Your task to perform on an android device: Open the calendar app, open the side menu, and click the "Day" option Image 0: 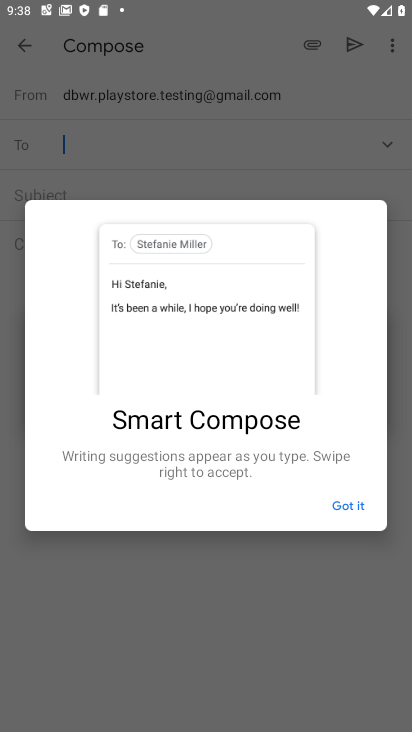
Step 0: press home button
Your task to perform on an android device: Open the calendar app, open the side menu, and click the "Day" option Image 1: 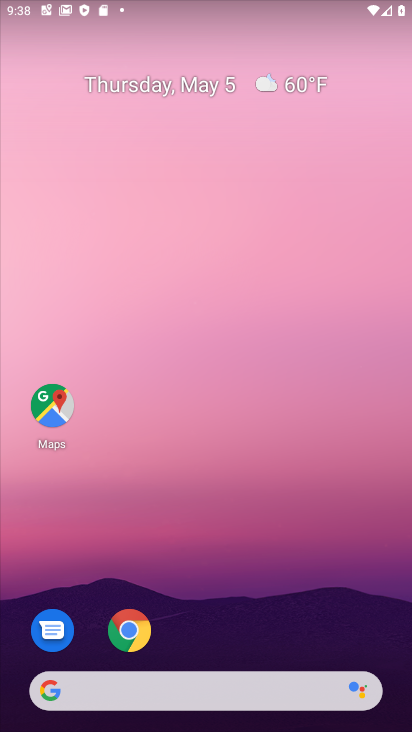
Step 1: drag from (240, 620) to (200, 26)
Your task to perform on an android device: Open the calendar app, open the side menu, and click the "Day" option Image 2: 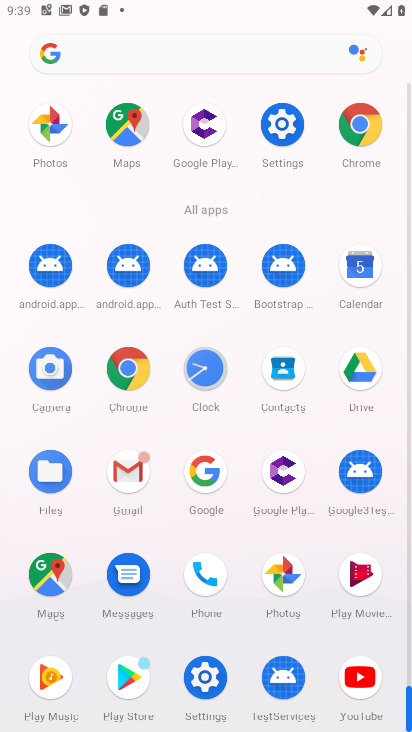
Step 2: click (365, 266)
Your task to perform on an android device: Open the calendar app, open the side menu, and click the "Day" option Image 3: 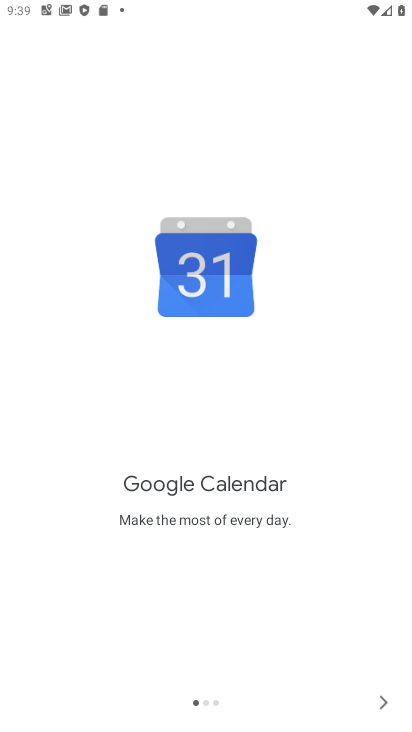
Step 3: click (389, 712)
Your task to perform on an android device: Open the calendar app, open the side menu, and click the "Day" option Image 4: 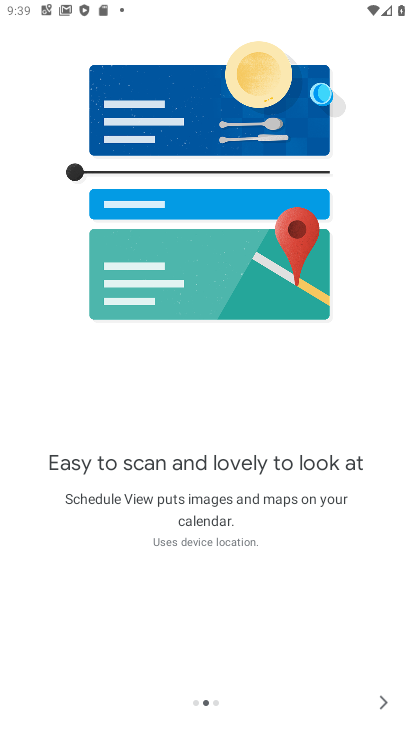
Step 4: click (380, 695)
Your task to perform on an android device: Open the calendar app, open the side menu, and click the "Day" option Image 5: 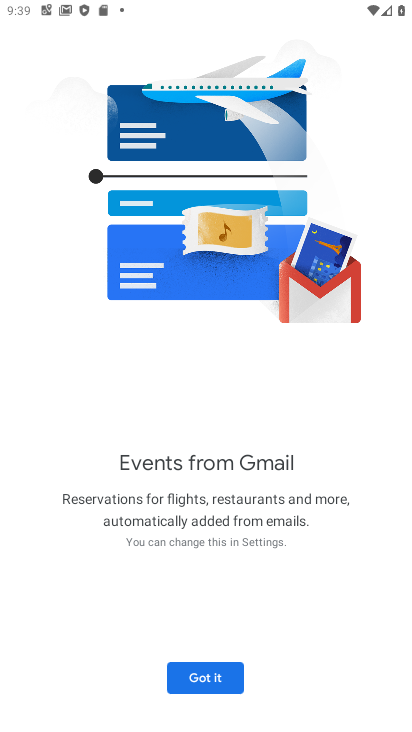
Step 5: click (176, 683)
Your task to perform on an android device: Open the calendar app, open the side menu, and click the "Day" option Image 6: 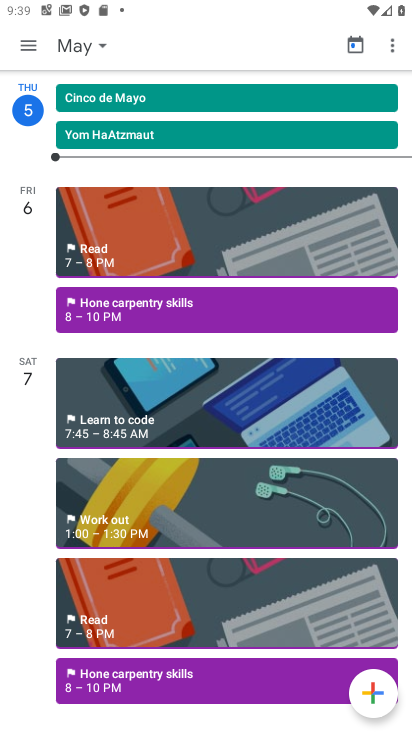
Step 6: click (32, 46)
Your task to perform on an android device: Open the calendar app, open the side menu, and click the "Day" option Image 7: 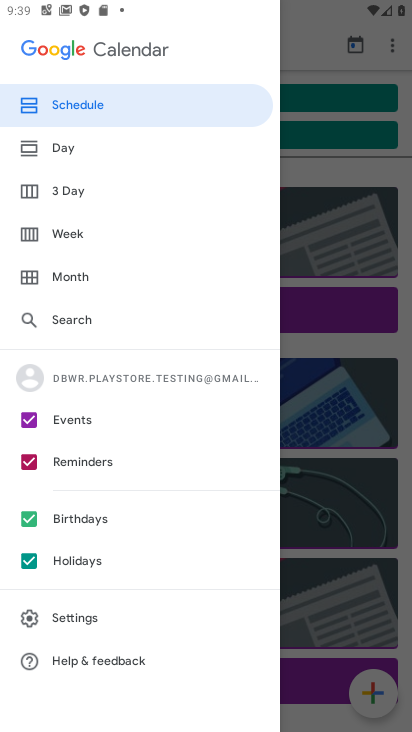
Step 7: click (75, 146)
Your task to perform on an android device: Open the calendar app, open the side menu, and click the "Day" option Image 8: 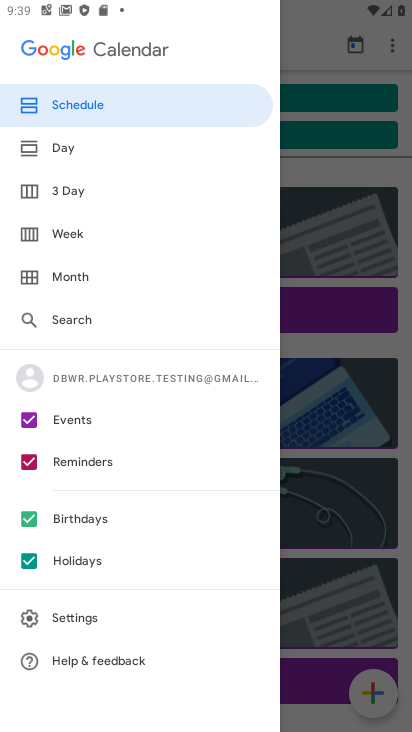
Step 8: click (56, 147)
Your task to perform on an android device: Open the calendar app, open the side menu, and click the "Day" option Image 9: 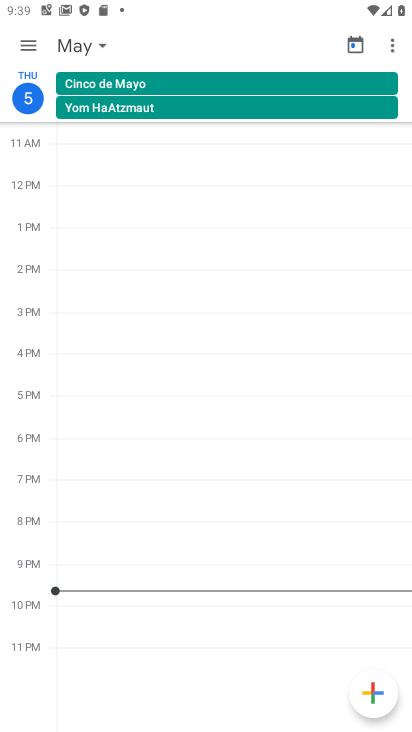
Step 9: click (263, 92)
Your task to perform on an android device: Open the calendar app, open the side menu, and click the "Day" option Image 10: 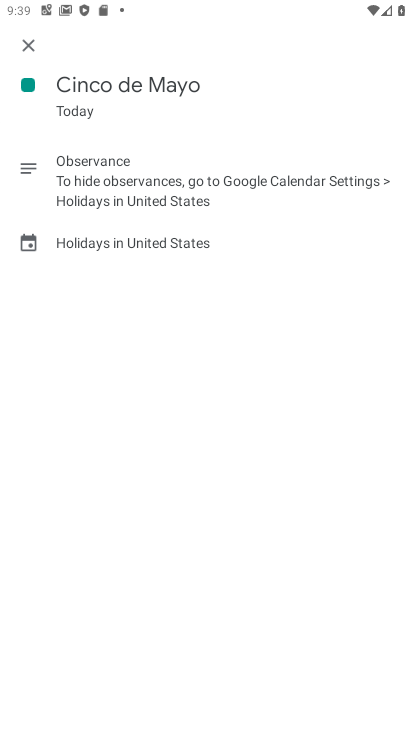
Step 10: task complete